Your task to perform on an android device: Set the phone to "Do not disturb". Image 0: 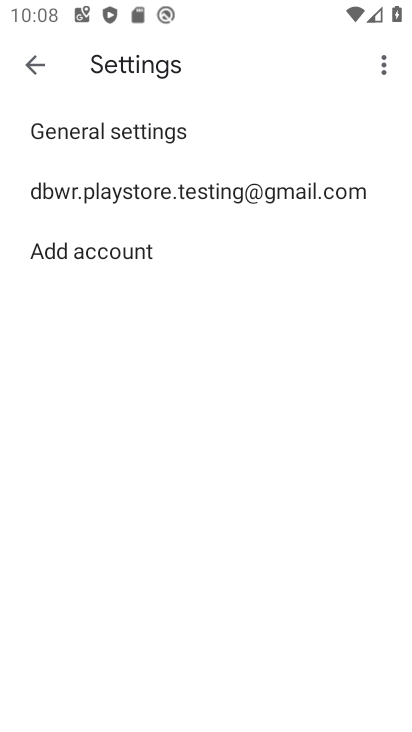
Step 0: press home button
Your task to perform on an android device: Set the phone to "Do not disturb". Image 1: 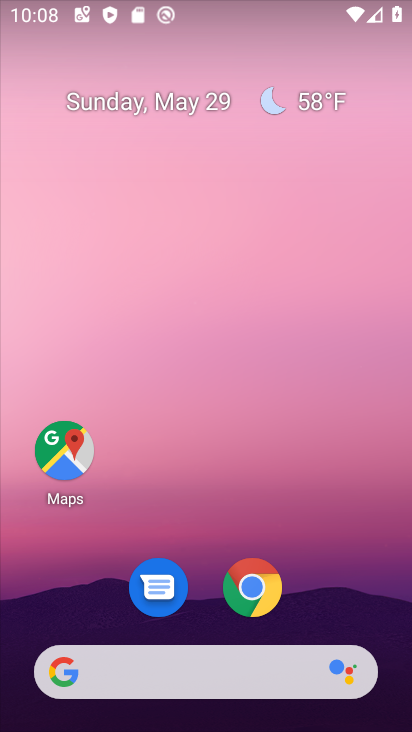
Step 1: drag from (379, 598) to (293, 258)
Your task to perform on an android device: Set the phone to "Do not disturb". Image 2: 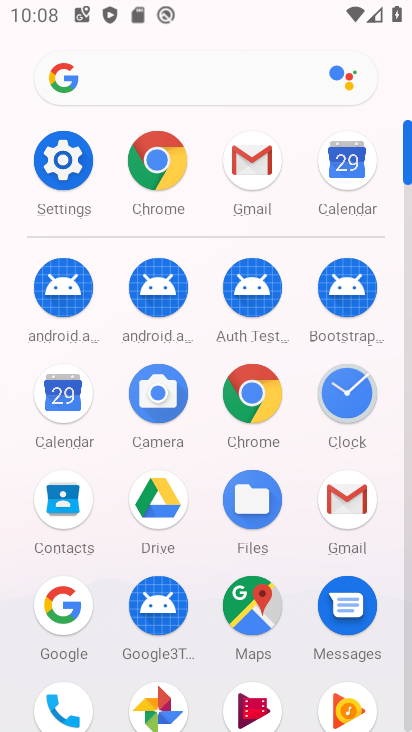
Step 2: click (79, 171)
Your task to perform on an android device: Set the phone to "Do not disturb". Image 3: 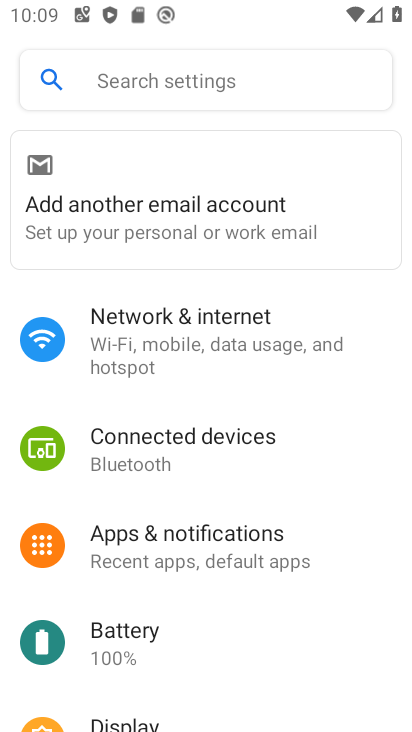
Step 3: drag from (238, 662) to (184, 273)
Your task to perform on an android device: Set the phone to "Do not disturb". Image 4: 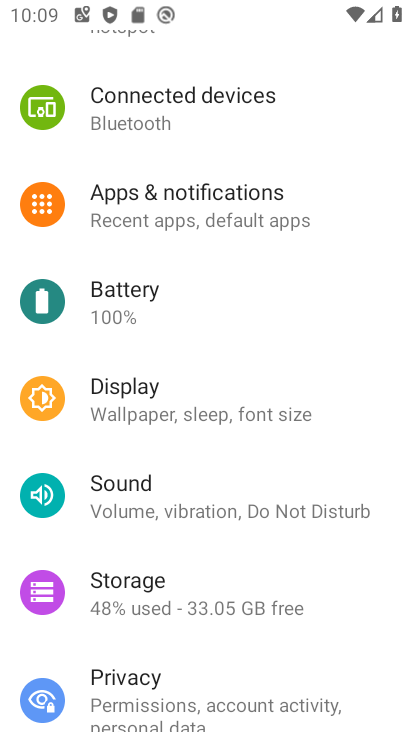
Step 4: click (214, 511)
Your task to perform on an android device: Set the phone to "Do not disturb". Image 5: 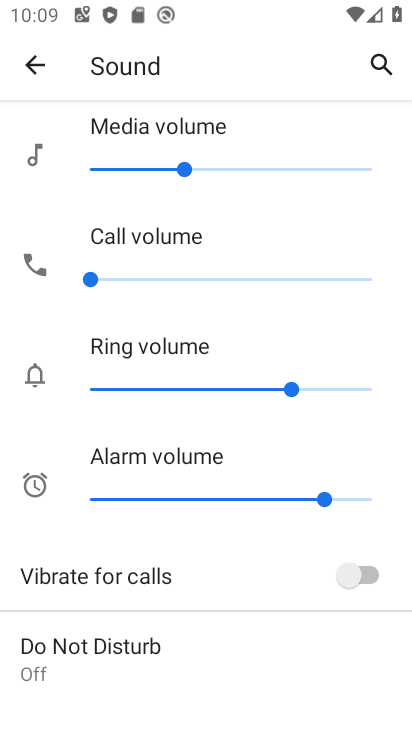
Step 5: click (258, 644)
Your task to perform on an android device: Set the phone to "Do not disturb". Image 6: 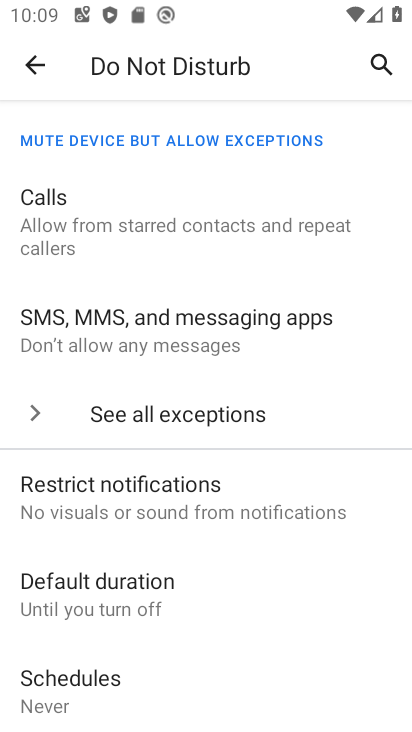
Step 6: drag from (205, 602) to (174, 320)
Your task to perform on an android device: Set the phone to "Do not disturb". Image 7: 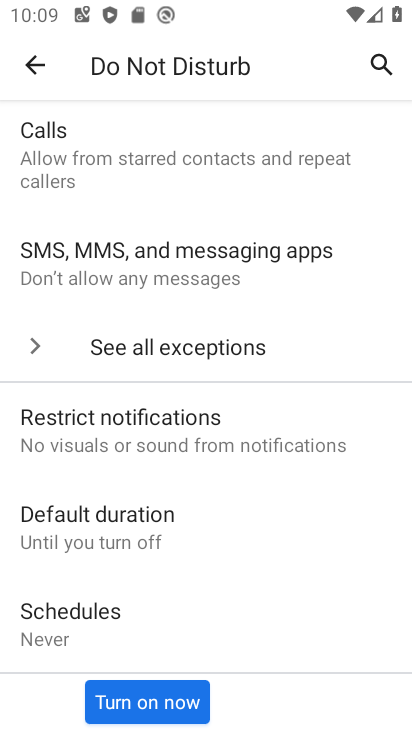
Step 7: click (165, 712)
Your task to perform on an android device: Set the phone to "Do not disturb". Image 8: 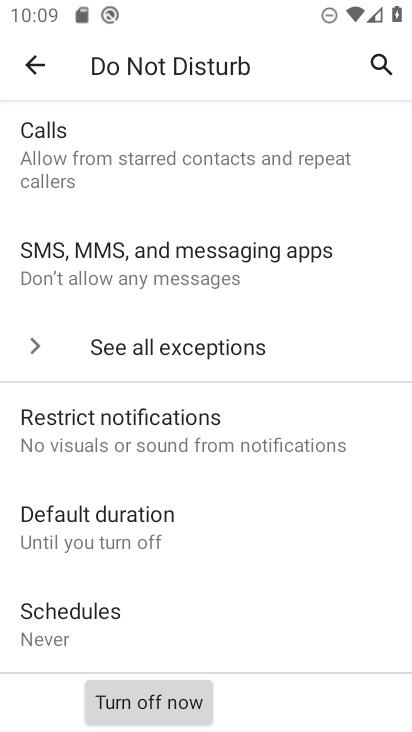
Step 8: task complete